Your task to perform on an android device: turn on improve location accuracy Image 0: 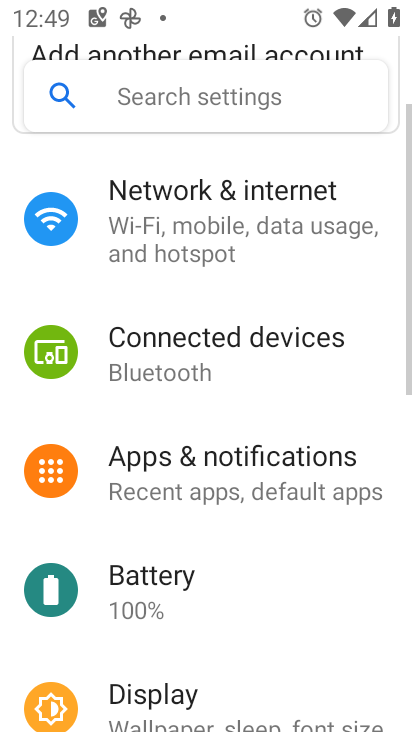
Step 0: press home button
Your task to perform on an android device: turn on improve location accuracy Image 1: 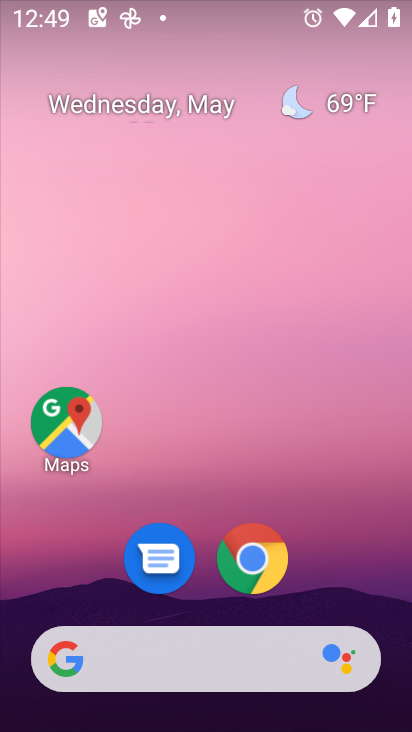
Step 1: drag from (386, 668) to (272, 131)
Your task to perform on an android device: turn on improve location accuracy Image 2: 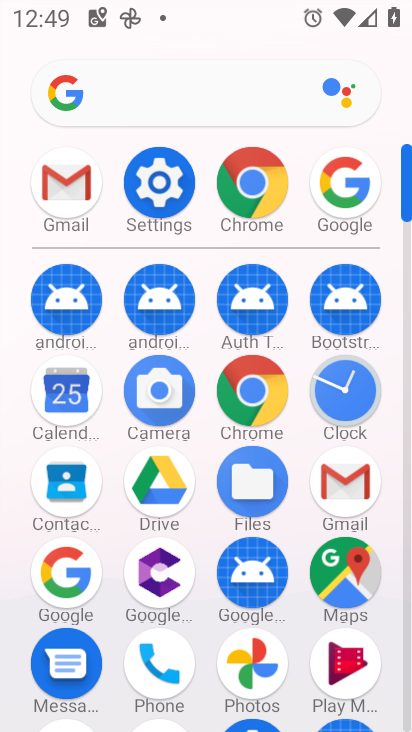
Step 2: click (147, 199)
Your task to perform on an android device: turn on improve location accuracy Image 3: 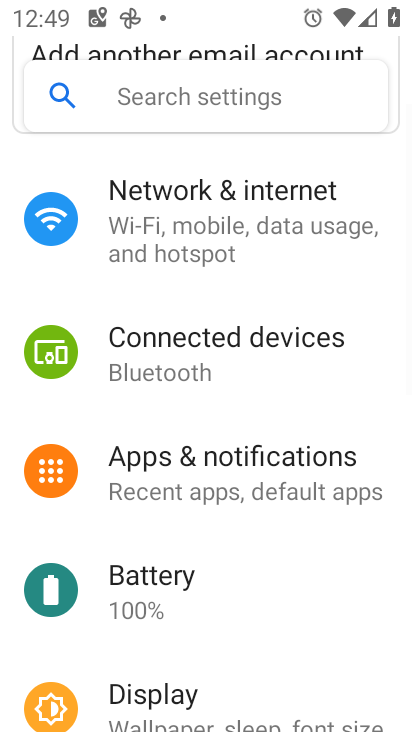
Step 3: drag from (220, 680) to (174, 32)
Your task to perform on an android device: turn on improve location accuracy Image 4: 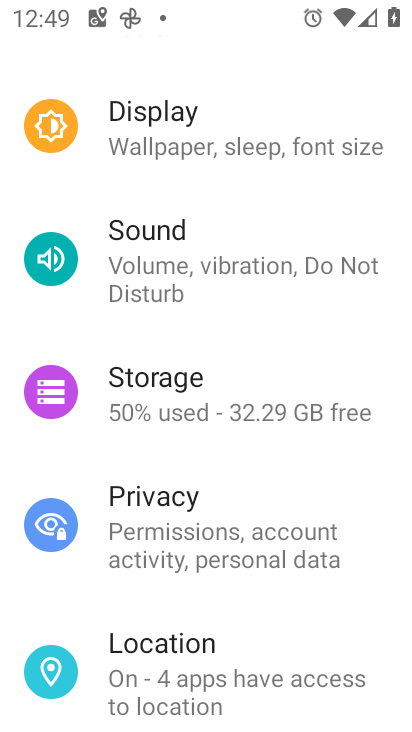
Step 4: click (168, 681)
Your task to perform on an android device: turn on improve location accuracy Image 5: 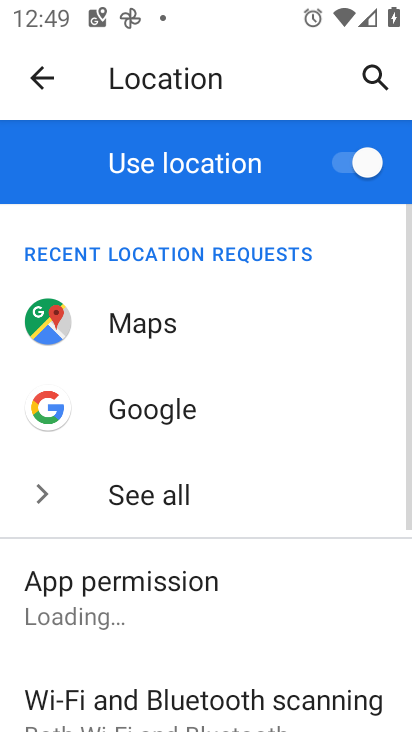
Step 5: drag from (218, 627) to (259, 104)
Your task to perform on an android device: turn on improve location accuracy Image 6: 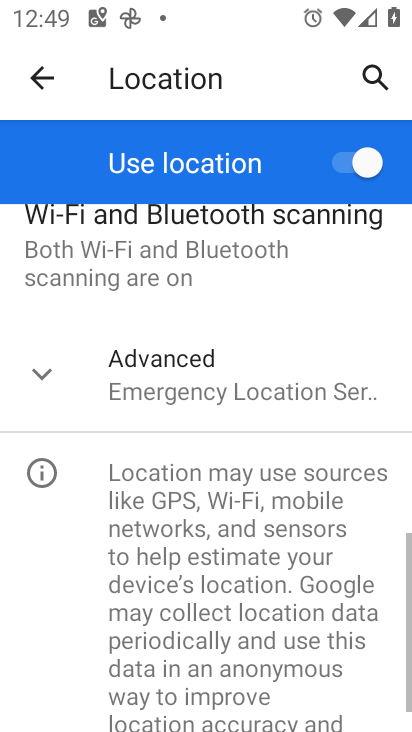
Step 6: click (205, 367)
Your task to perform on an android device: turn on improve location accuracy Image 7: 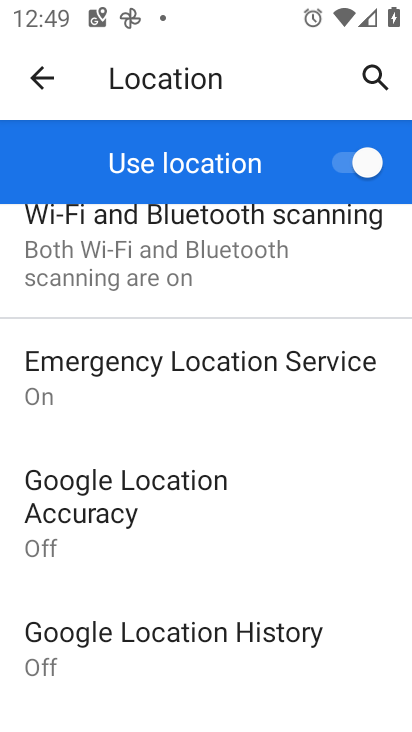
Step 7: click (178, 504)
Your task to perform on an android device: turn on improve location accuracy Image 8: 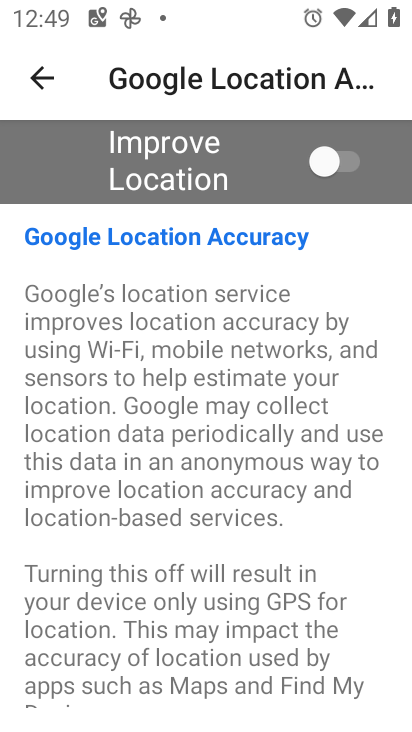
Step 8: click (318, 173)
Your task to perform on an android device: turn on improve location accuracy Image 9: 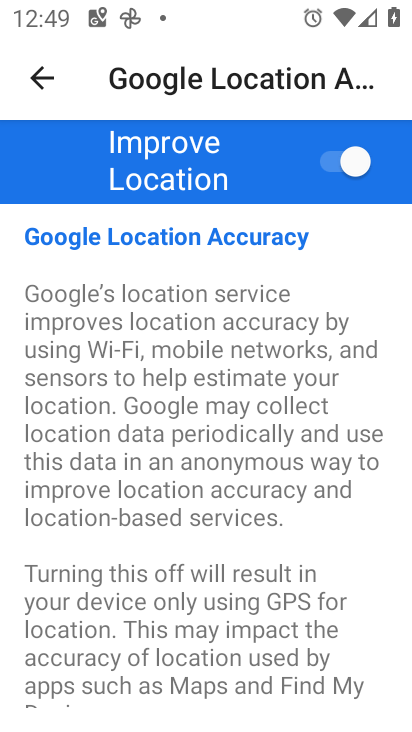
Step 9: task complete